Your task to perform on an android device: What is the news today? Image 0: 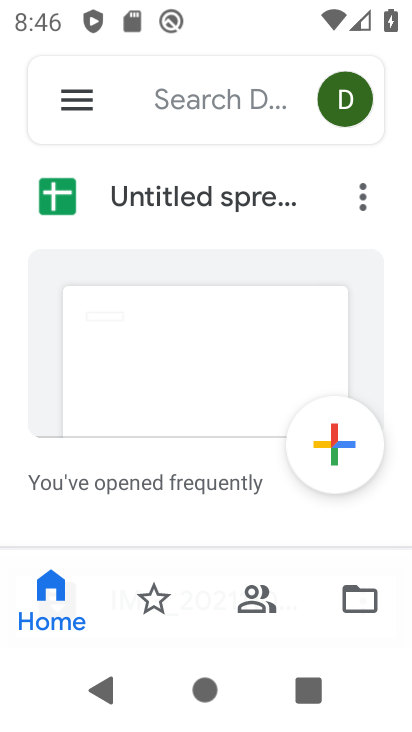
Step 0: press home button
Your task to perform on an android device: What is the news today? Image 1: 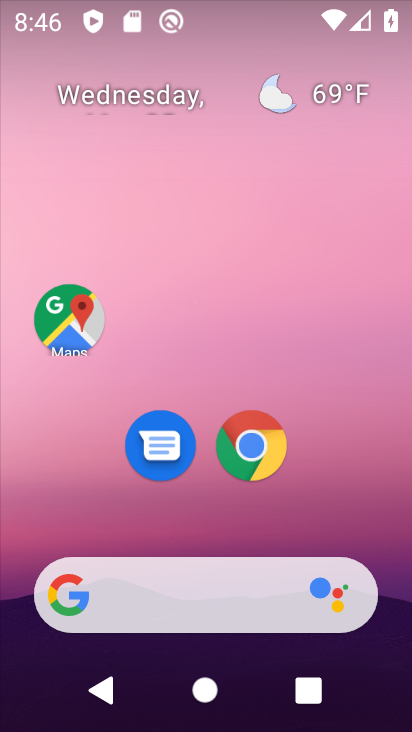
Step 1: drag from (248, 516) to (257, 96)
Your task to perform on an android device: What is the news today? Image 2: 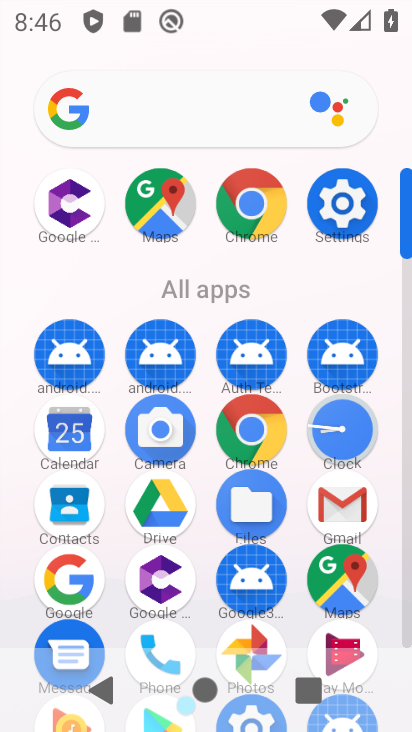
Step 2: click (241, 427)
Your task to perform on an android device: What is the news today? Image 3: 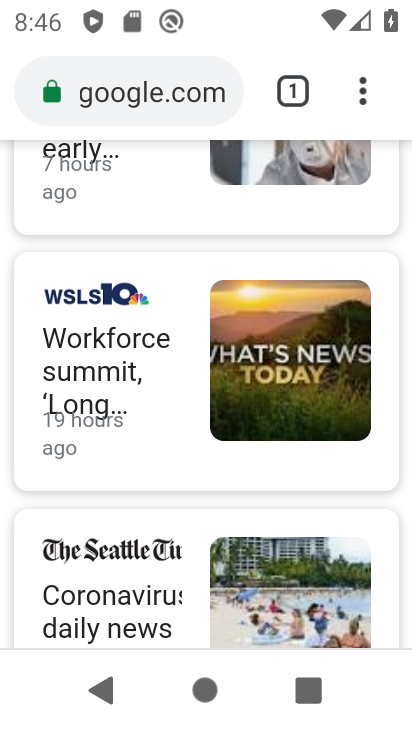
Step 3: click (128, 89)
Your task to perform on an android device: What is the news today? Image 4: 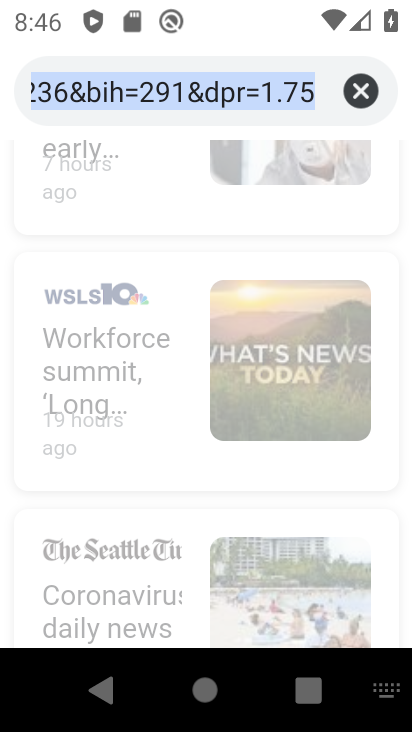
Step 4: click (363, 91)
Your task to perform on an android device: What is the news today? Image 5: 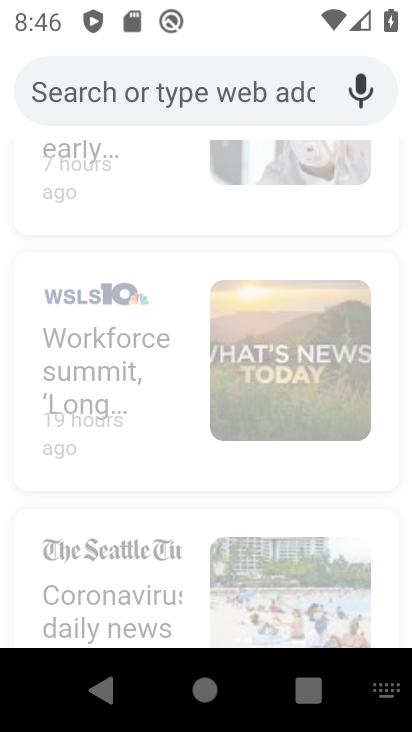
Step 5: type "What is the news today?"
Your task to perform on an android device: What is the news today? Image 6: 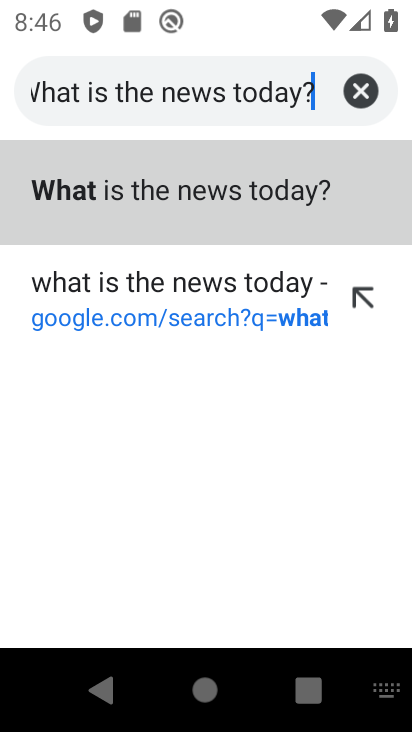
Step 6: click (182, 191)
Your task to perform on an android device: What is the news today? Image 7: 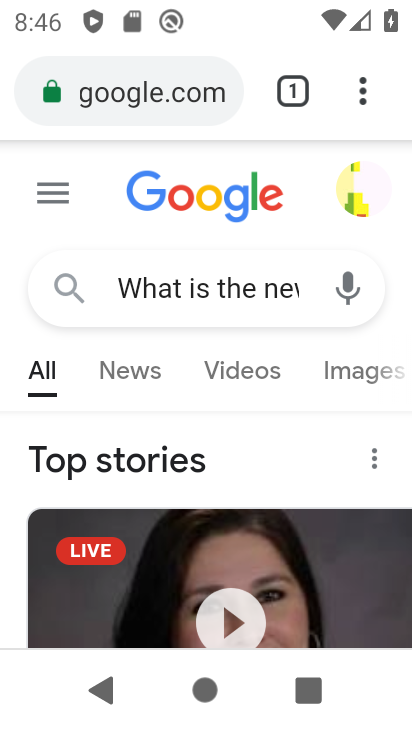
Step 7: task complete